Your task to perform on an android device: Open Google Maps and go to "Timeline" Image 0: 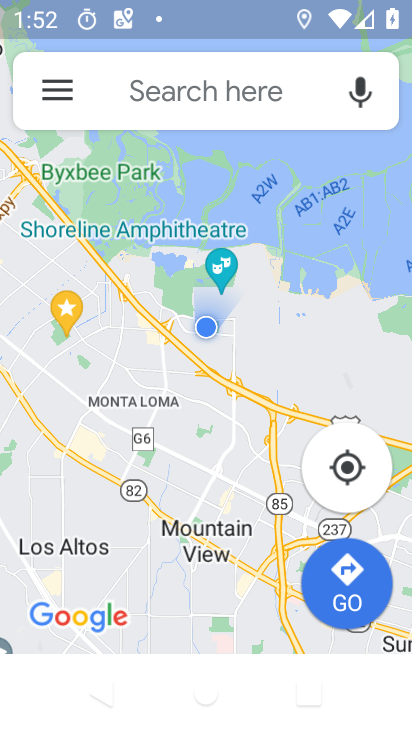
Step 0: click (62, 88)
Your task to perform on an android device: Open Google Maps and go to "Timeline" Image 1: 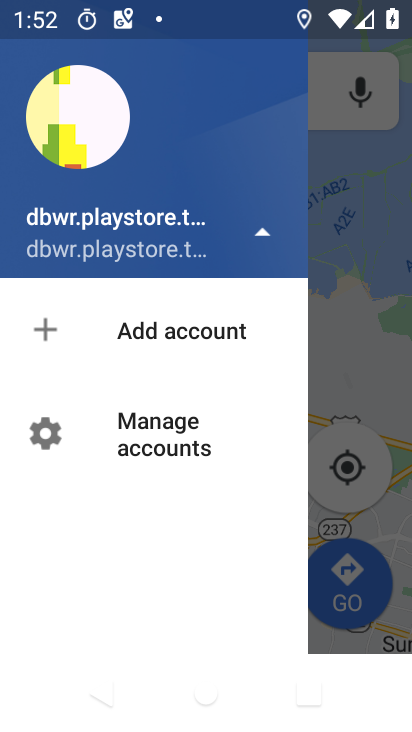
Step 1: press back button
Your task to perform on an android device: Open Google Maps and go to "Timeline" Image 2: 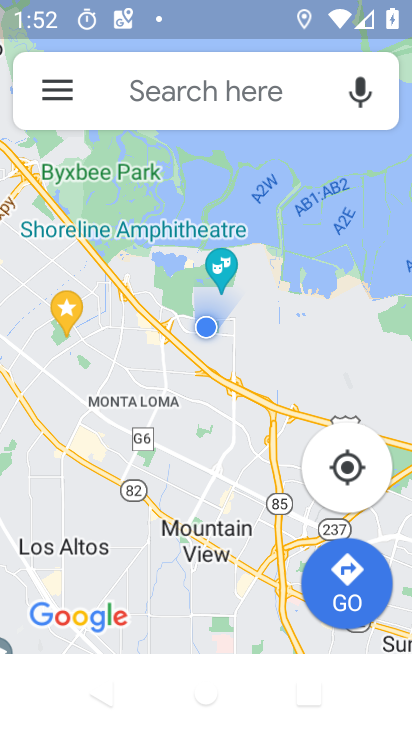
Step 2: click (49, 85)
Your task to perform on an android device: Open Google Maps and go to "Timeline" Image 3: 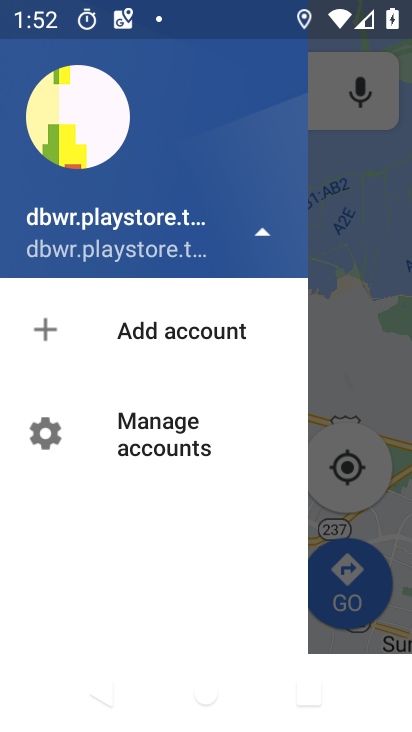
Step 3: drag from (94, 330) to (84, 635)
Your task to perform on an android device: Open Google Maps and go to "Timeline" Image 4: 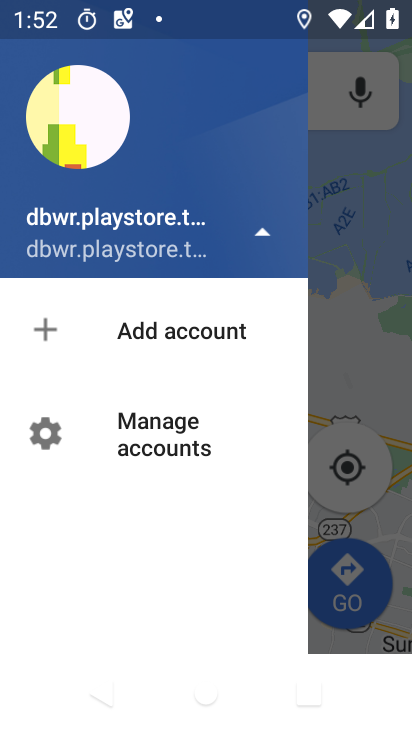
Step 4: click (267, 232)
Your task to perform on an android device: Open Google Maps and go to "Timeline" Image 5: 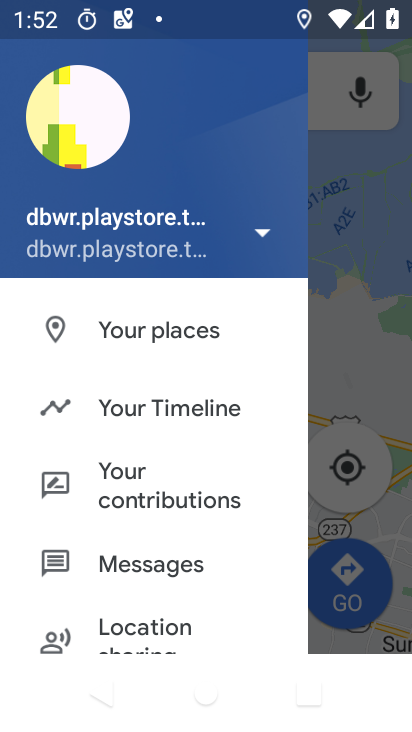
Step 5: click (135, 410)
Your task to perform on an android device: Open Google Maps and go to "Timeline" Image 6: 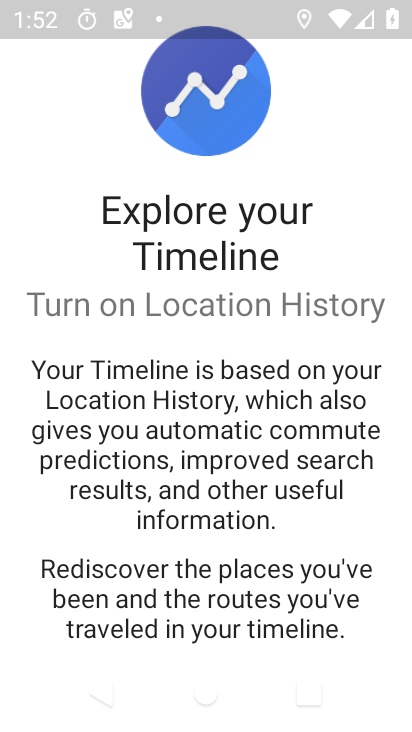
Step 6: drag from (186, 605) to (179, 281)
Your task to perform on an android device: Open Google Maps and go to "Timeline" Image 7: 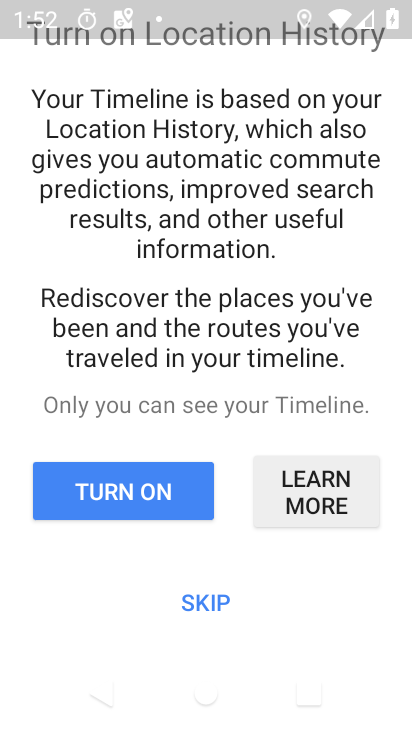
Step 7: click (168, 491)
Your task to perform on an android device: Open Google Maps and go to "Timeline" Image 8: 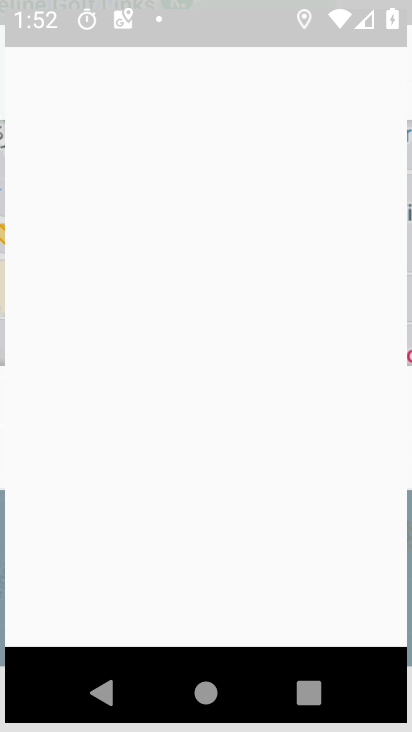
Step 8: drag from (241, 325) to (261, 156)
Your task to perform on an android device: Open Google Maps and go to "Timeline" Image 9: 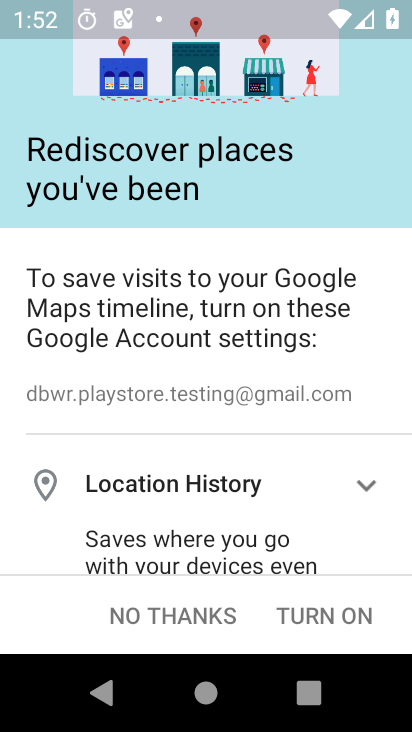
Step 9: click (308, 605)
Your task to perform on an android device: Open Google Maps and go to "Timeline" Image 10: 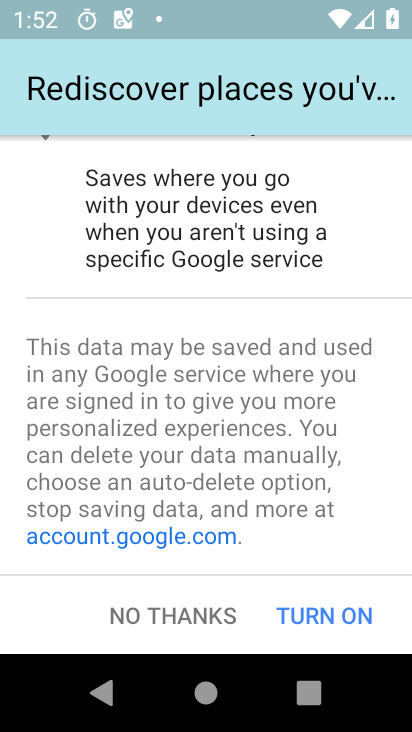
Step 10: task complete